Your task to perform on an android device: turn on data saver in the chrome app Image 0: 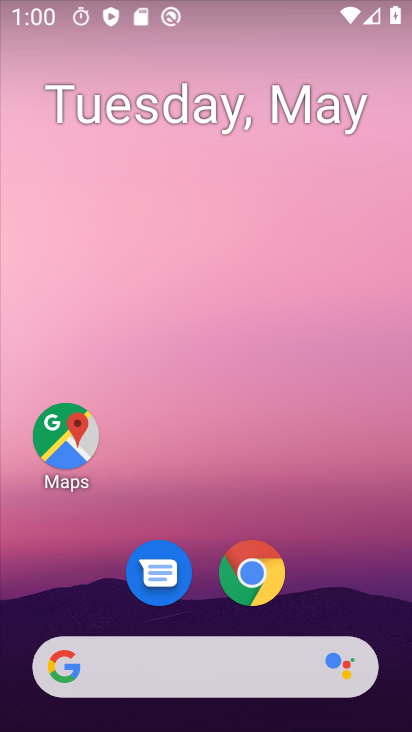
Step 0: click (261, 567)
Your task to perform on an android device: turn on data saver in the chrome app Image 1: 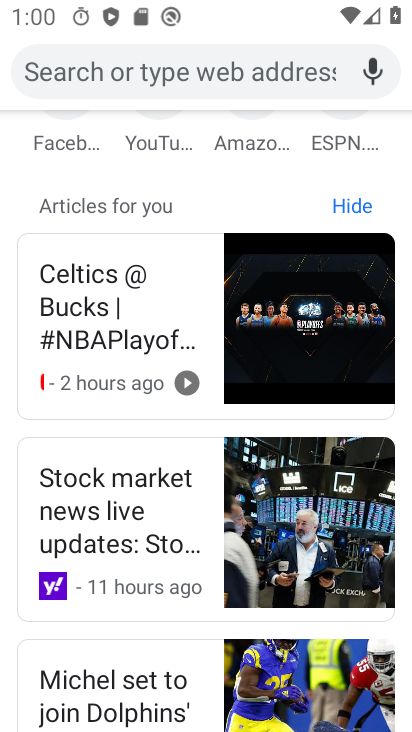
Step 1: drag from (186, 187) to (139, 640)
Your task to perform on an android device: turn on data saver in the chrome app Image 2: 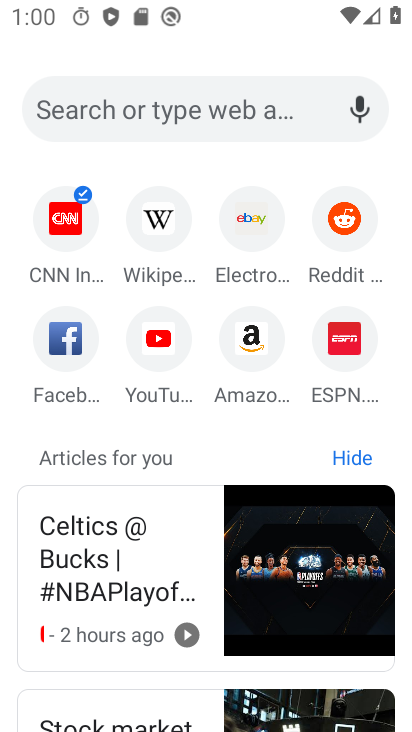
Step 2: drag from (108, 245) to (201, 706)
Your task to perform on an android device: turn on data saver in the chrome app Image 3: 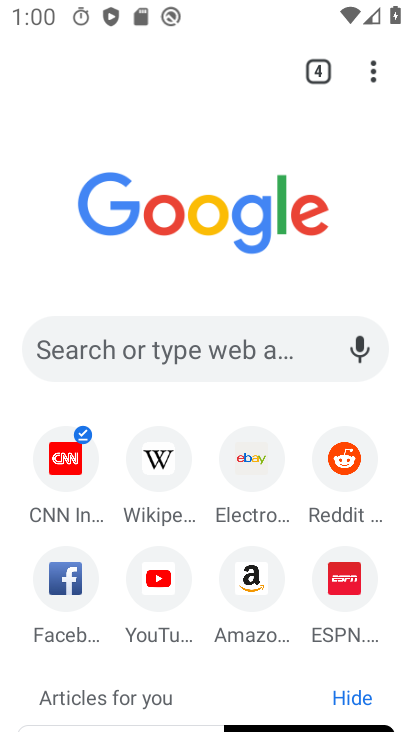
Step 3: drag from (362, 74) to (217, 582)
Your task to perform on an android device: turn on data saver in the chrome app Image 4: 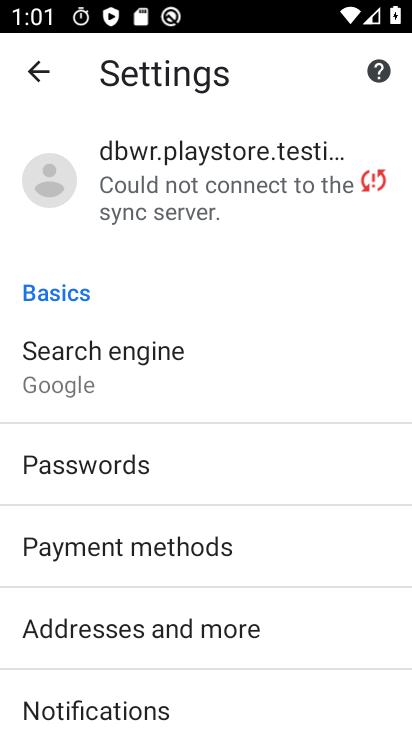
Step 4: drag from (192, 618) to (85, 131)
Your task to perform on an android device: turn on data saver in the chrome app Image 5: 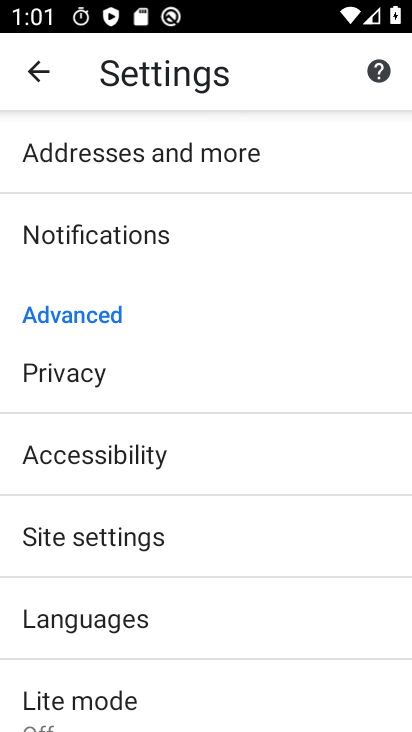
Step 5: click (96, 690)
Your task to perform on an android device: turn on data saver in the chrome app Image 6: 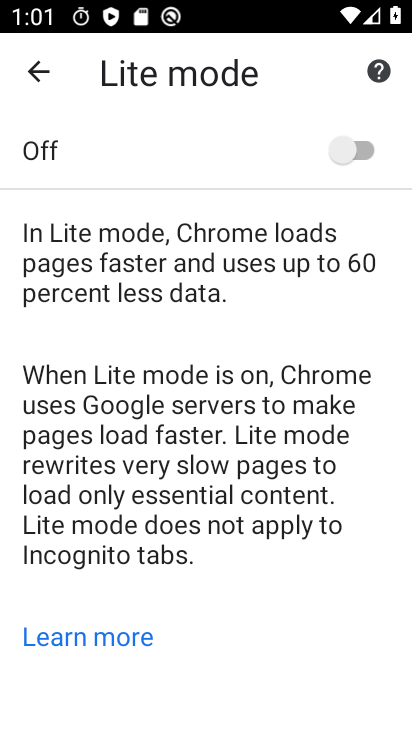
Step 6: click (365, 148)
Your task to perform on an android device: turn on data saver in the chrome app Image 7: 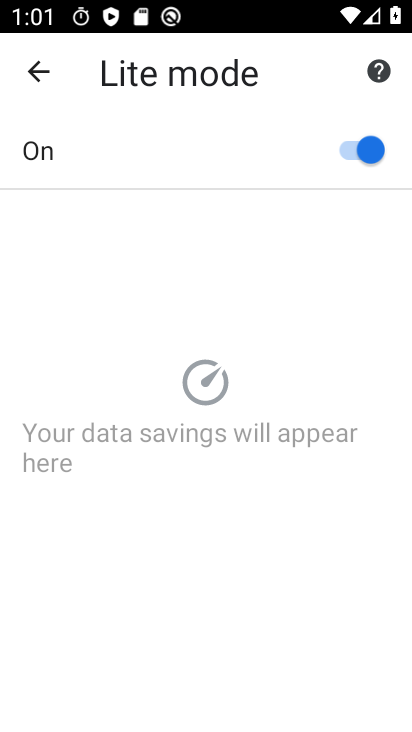
Step 7: task complete